Your task to perform on an android device: Go to notification settings Image 0: 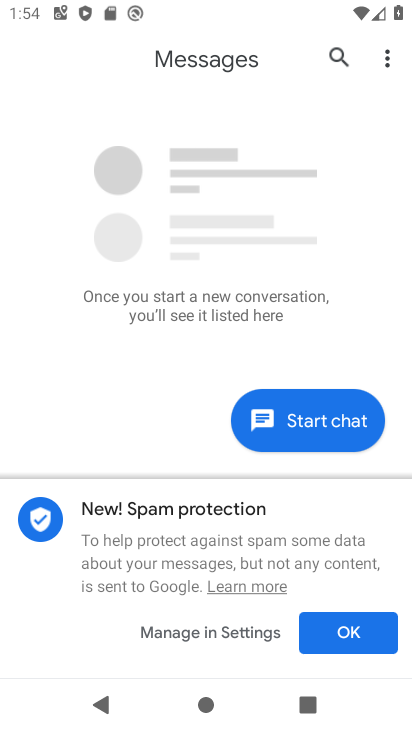
Step 0: press home button
Your task to perform on an android device: Go to notification settings Image 1: 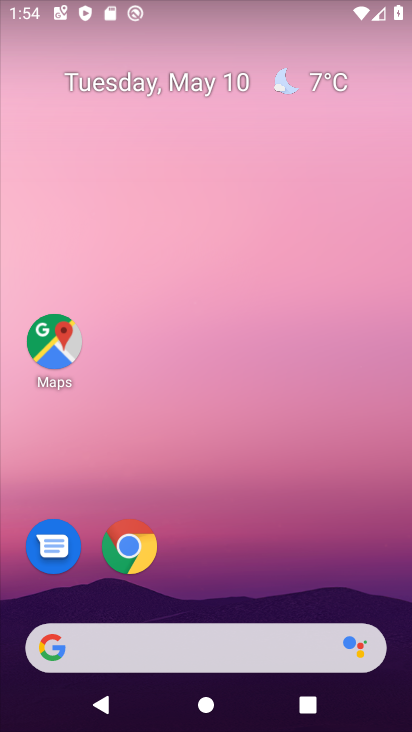
Step 1: drag from (364, 555) to (335, 141)
Your task to perform on an android device: Go to notification settings Image 2: 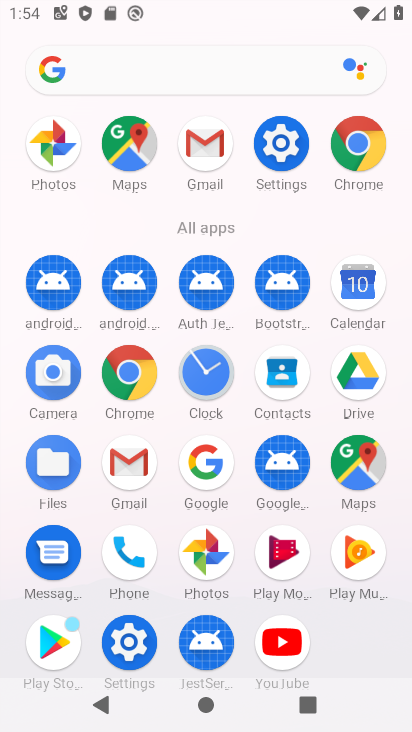
Step 2: click (269, 155)
Your task to perform on an android device: Go to notification settings Image 3: 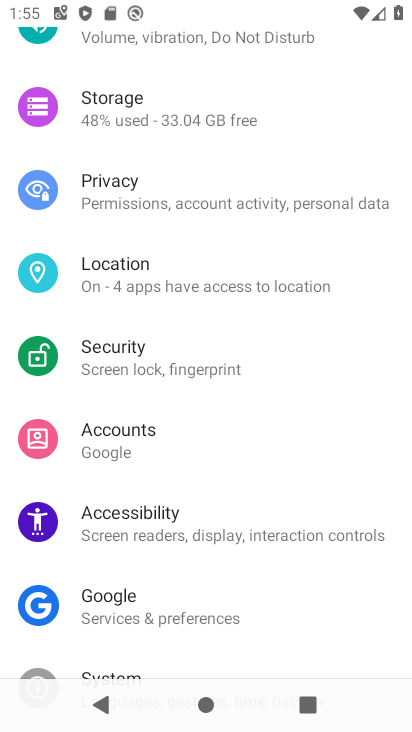
Step 3: drag from (229, 181) to (270, 524)
Your task to perform on an android device: Go to notification settings Image 4: 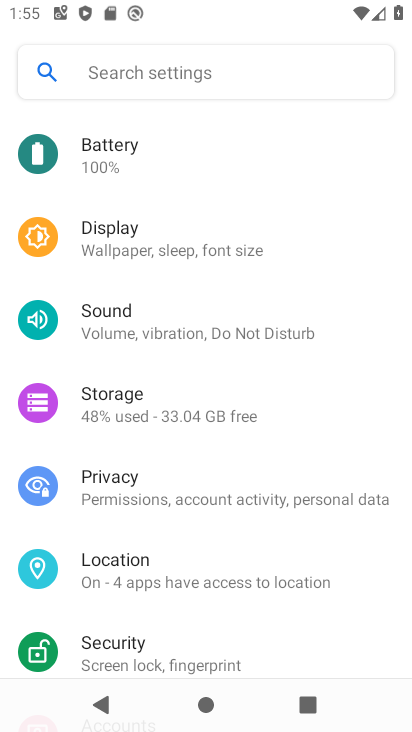
Step 4: drag from (196, 309) to (208, 588)
Your task to perform on an android device: Go to notification settings Image 5: 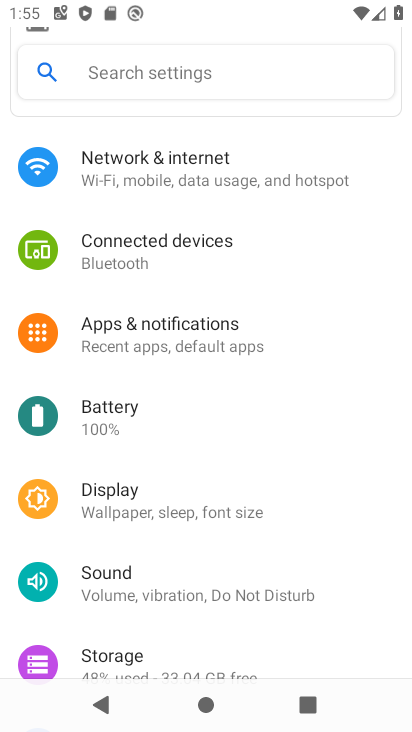
Step 5: click (184, 334)
Your task to perform on an android device: Go to notification settings Image 6: 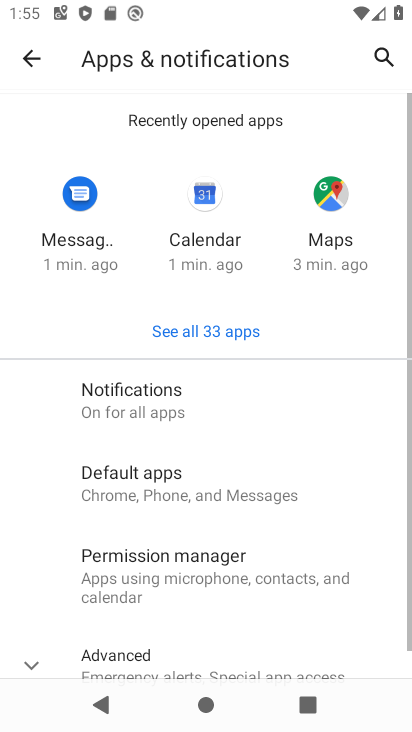
Step 6: click (178, 407)
Your task to perform on an android device: Go to notification settings Image 7: 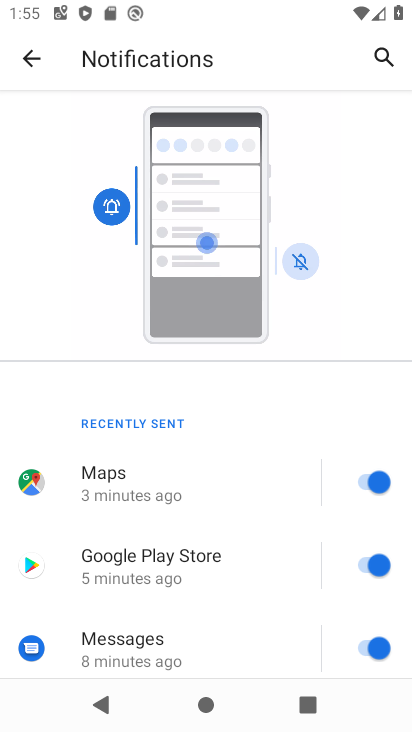
Step 7: task complete